Your task to perform on an android device: Go to battery settings Image 0: 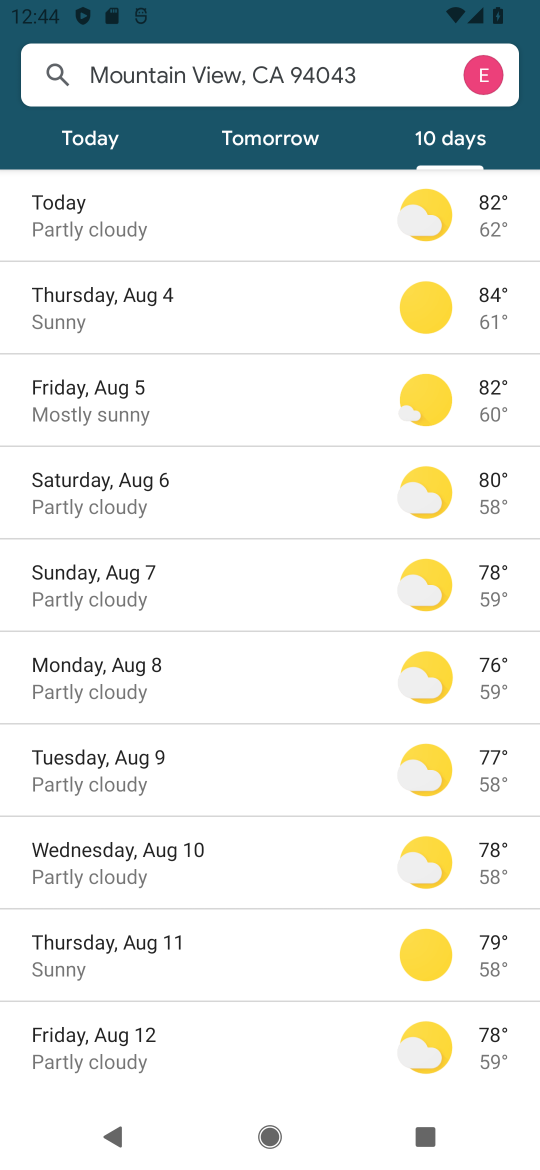
Step 0: press back button
Your task to perform on an android device: Go to battery settings Image 1: 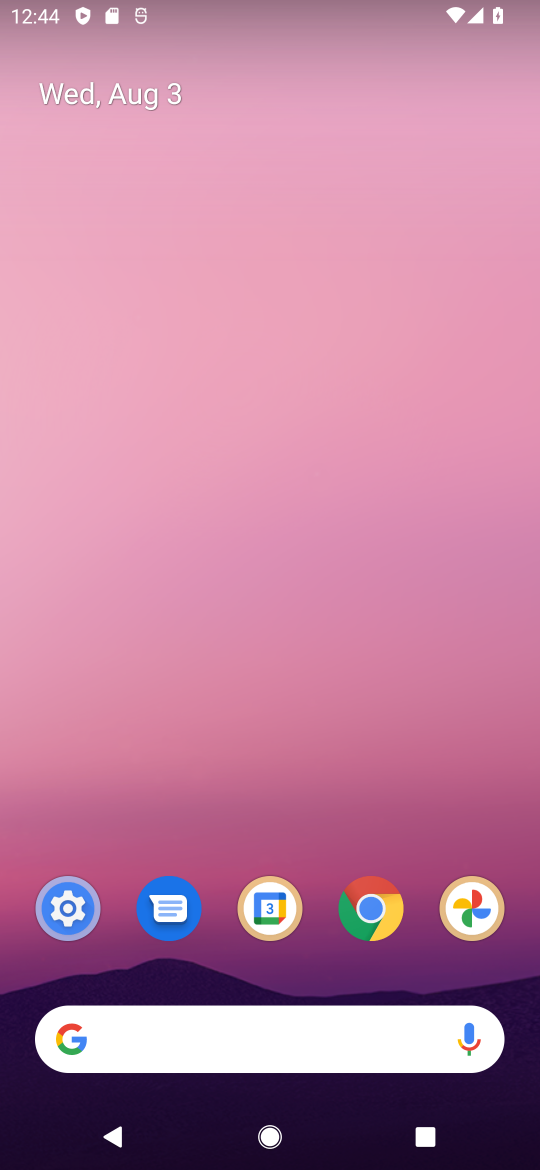
Step 1: click (70, 915)
Your task to perform on an android device: Go to battery settings Image 2: 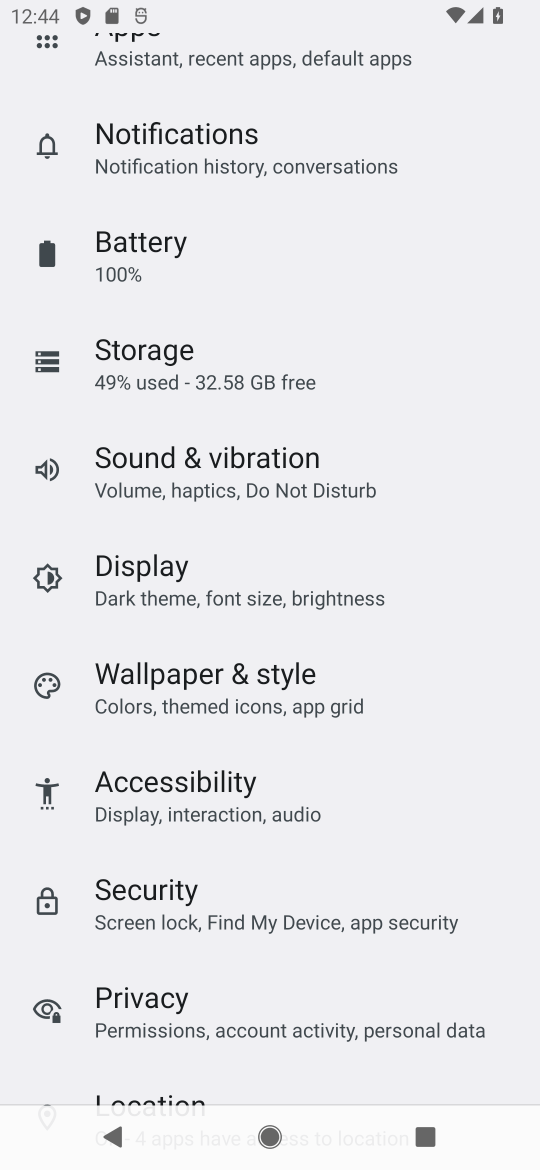
Step 2: click (109, 258)
Your task to perform on an android device: Go to battery settings Image 3: 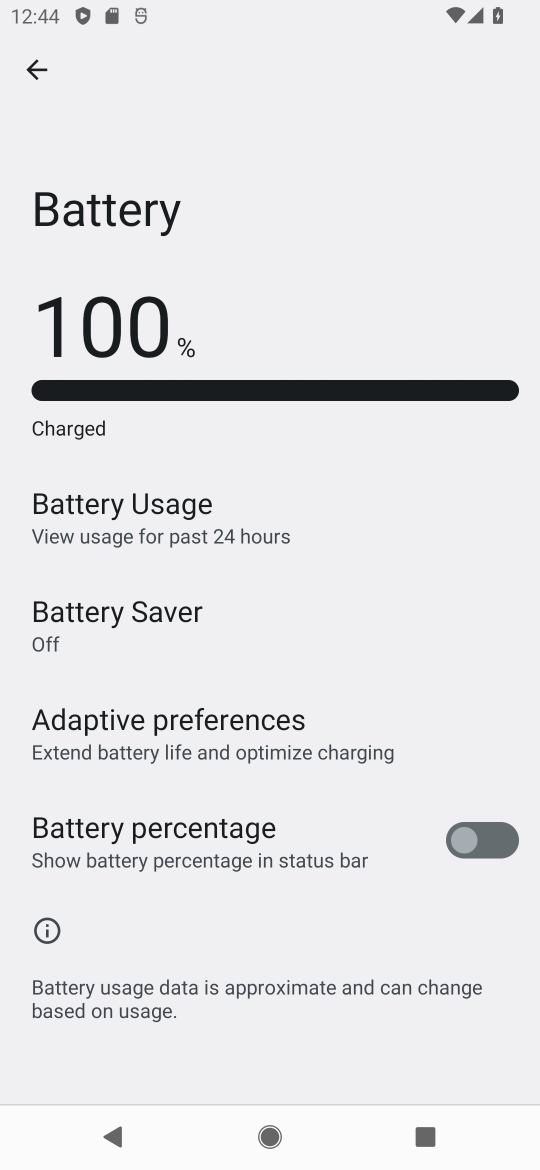
Step 3: task complete